Your task to perform on an android device: Open maps Image 0: 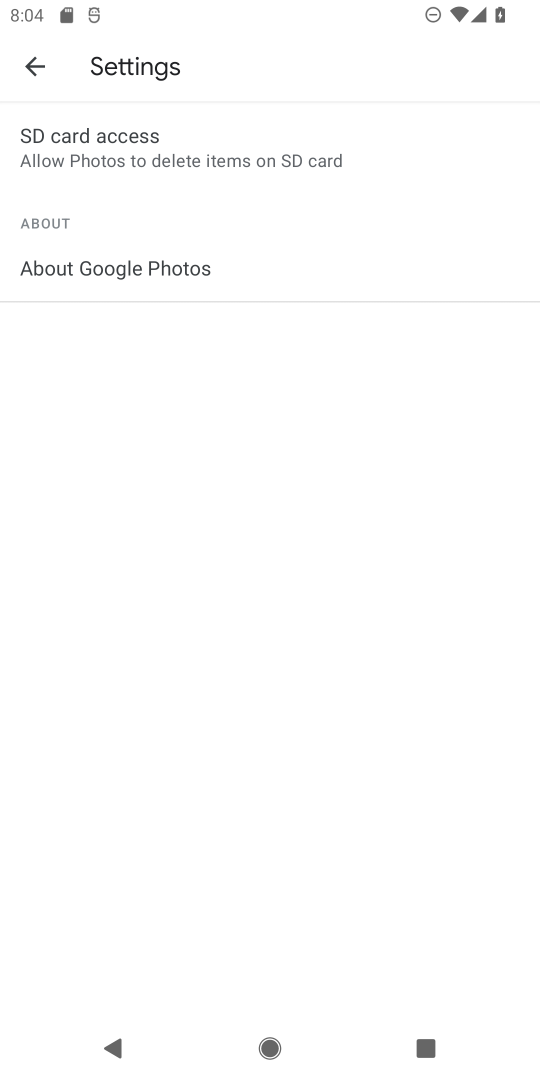
Step 0: press home button
Your task to perform on an android device: Open maps Image 1: 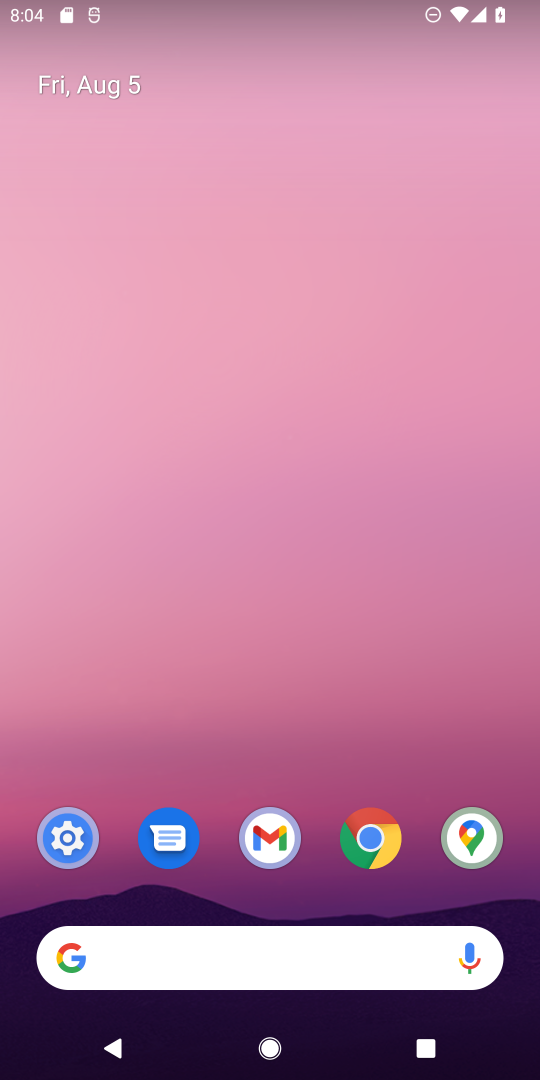
Step 1: drag from (215, 932) to (210, 460)
Your task to perform on an android device: Open maps Image 2: 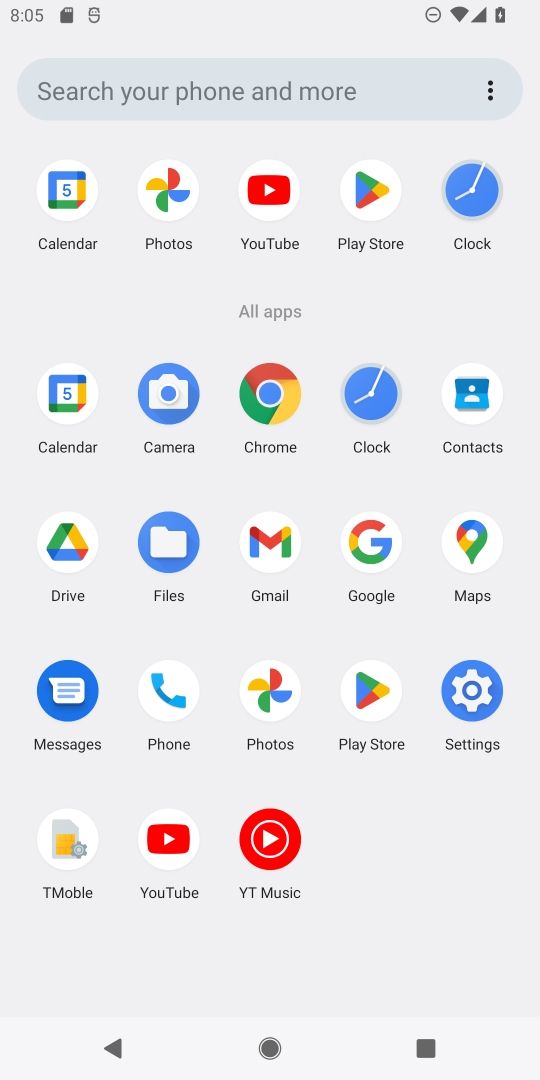
Step 2: click (469, 547)
Your task to perform on an android device: Open maps Image 3: 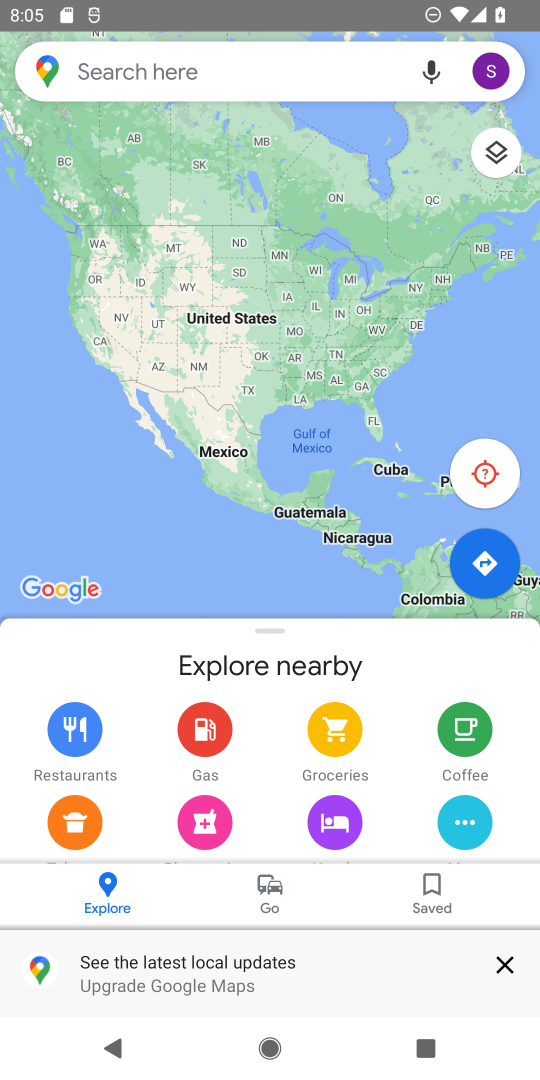
Step 3: task complete